Your task to perform on an android device: turn off wifi Image 0: 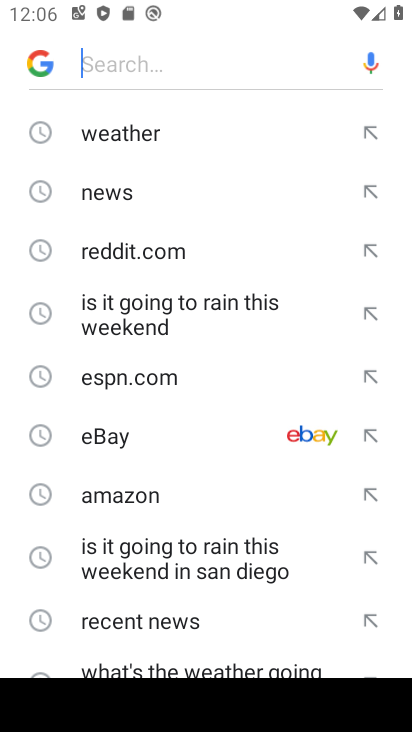
Step 0: drag from (208, 7) to (153, 636)
Your task to perform on an android device: turn off wifi Image 1: 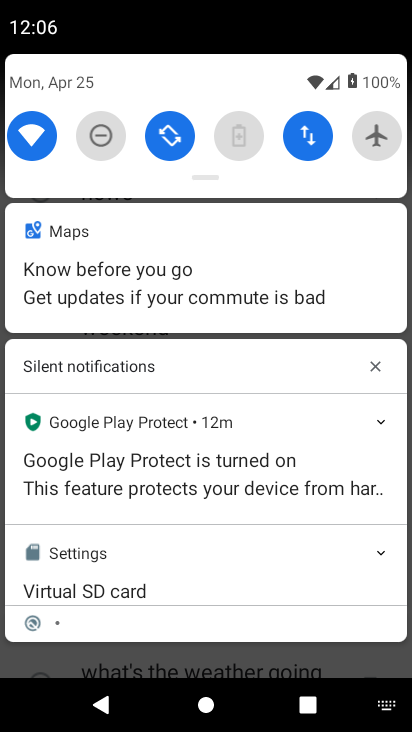
Step 1: click (48, 115)
Your task to perform on an android device: turn off wifi Image 2: 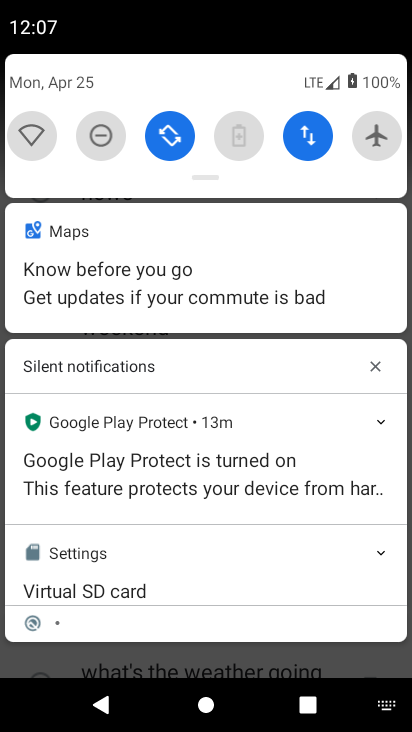
Step 2: task complete